Your task to perform on an android device: Open settings Image 0: 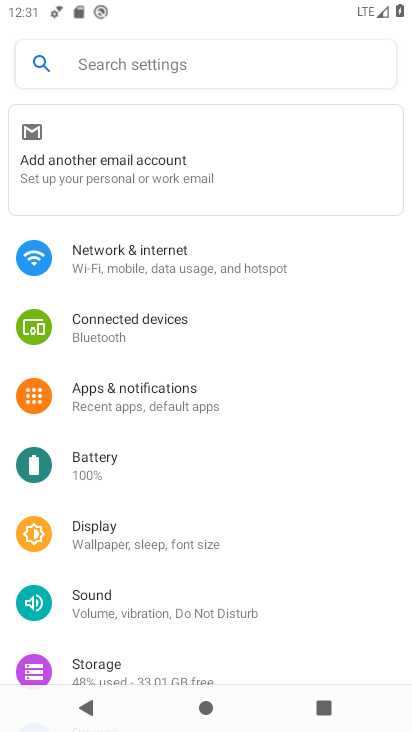
Step 0: task complete